Your task to perform on an android device: turn on translation in the chrome app Image 0: 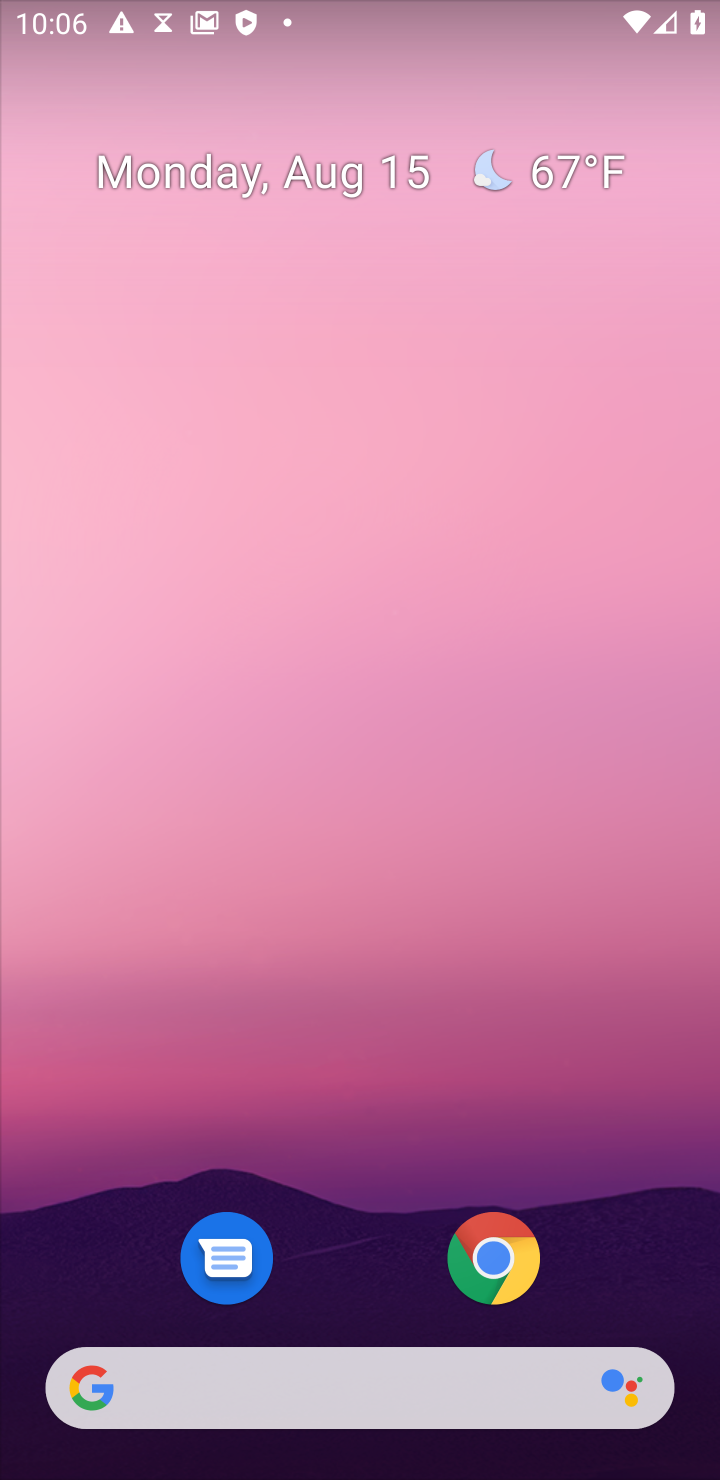
Step 0: drag from (369, 1318) to (690, 9)
Your task to perform on an android device: turn on translation in the chrome app Image 1: 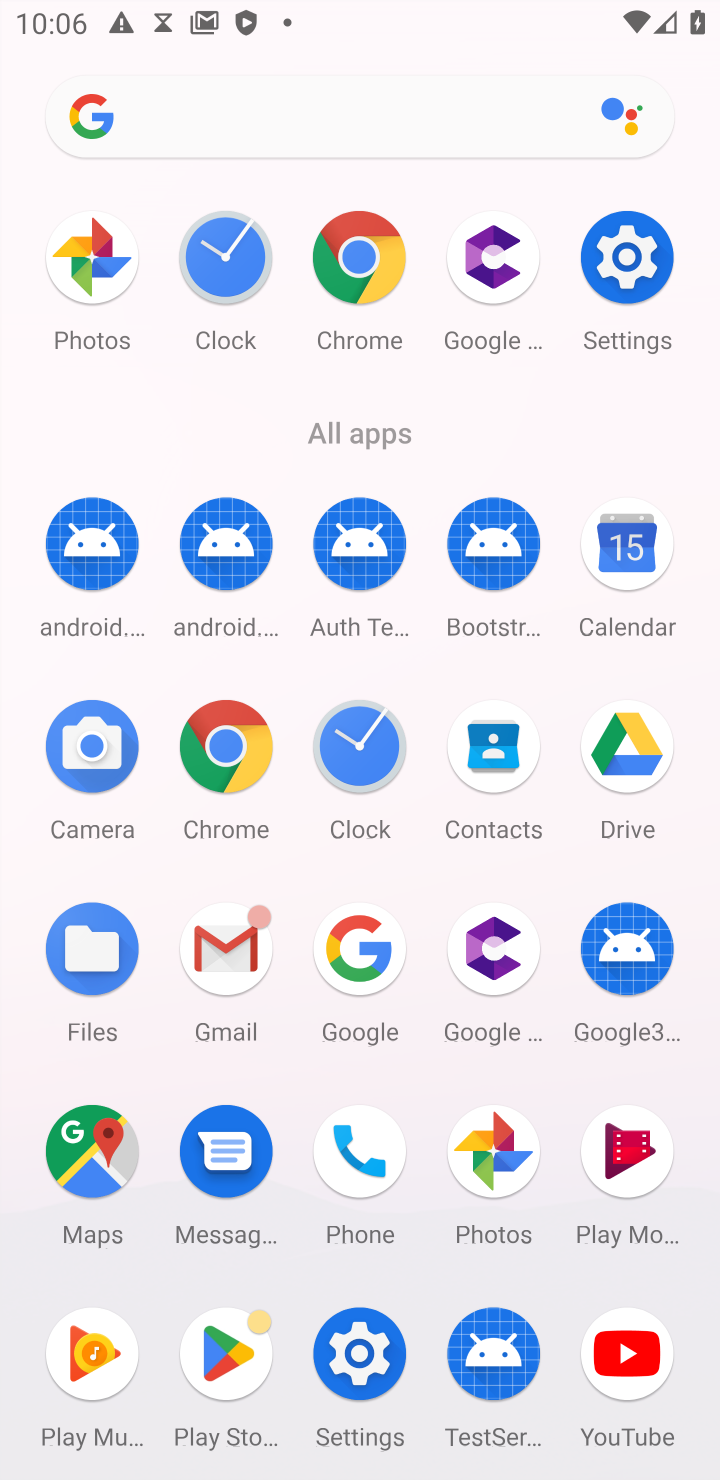
Step 1: click (219, 769)
Your task to perform on an android device: turn on translation in the chrome app Image 2: 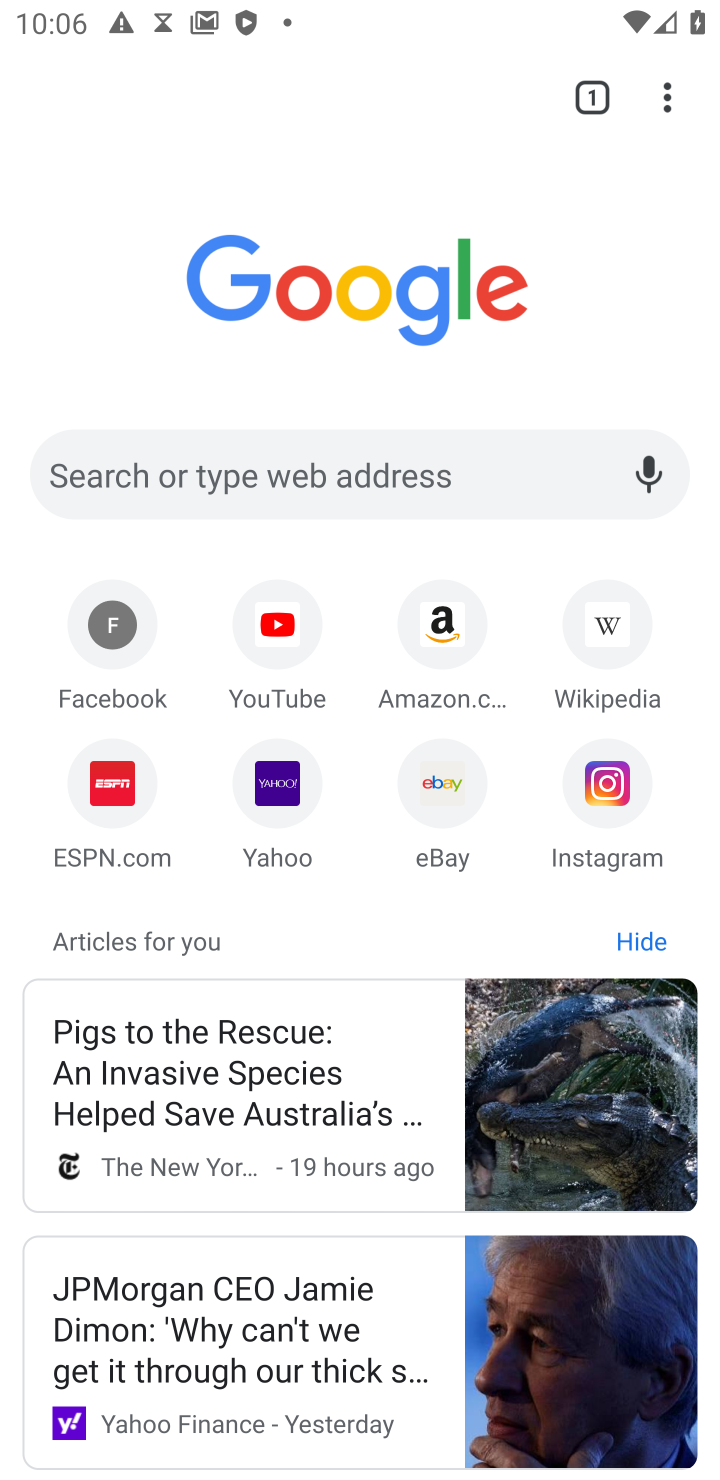
Step 2: click (669, 83)
Your task to perform on an android device: turn on translation in the chrome app Image 3: 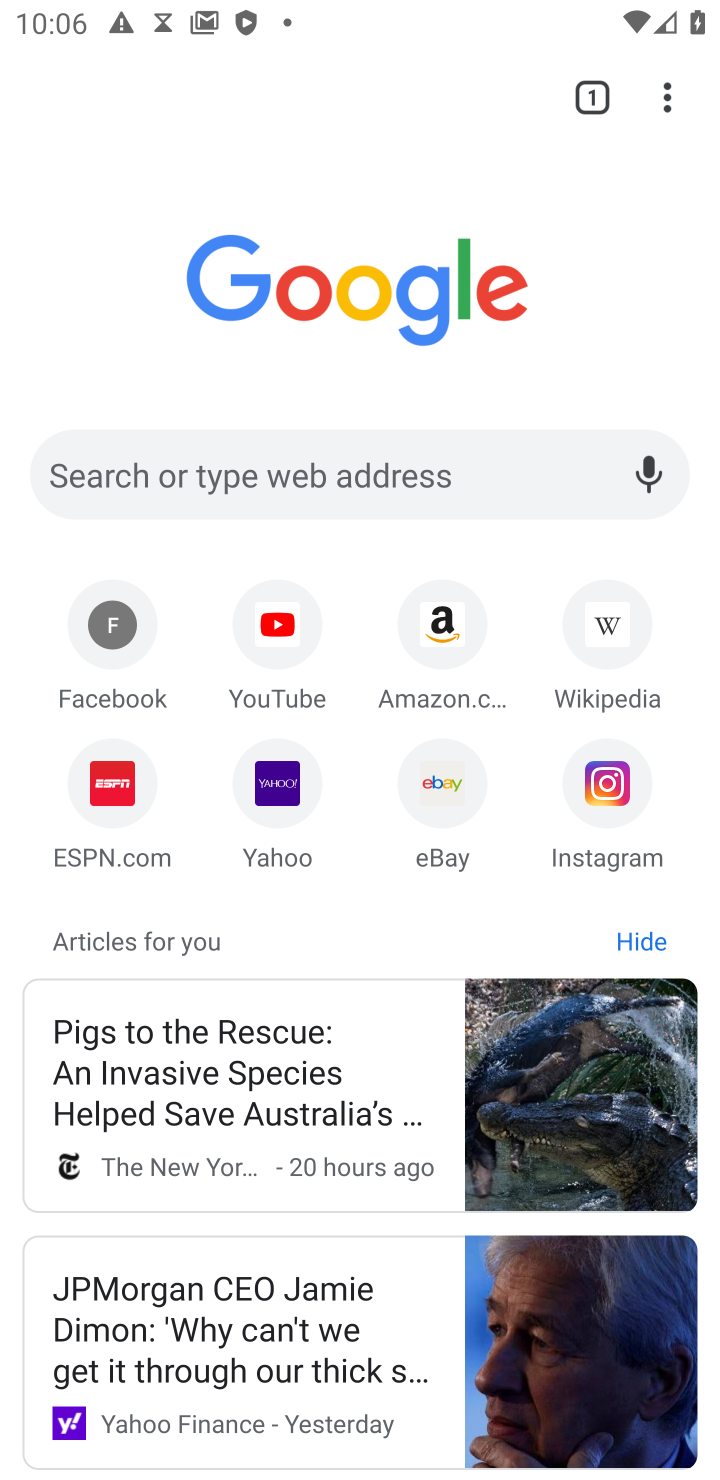
Step 3: click (673, 80)
Your task to perform on an android device: turn on translation in the chrome app Image 4: 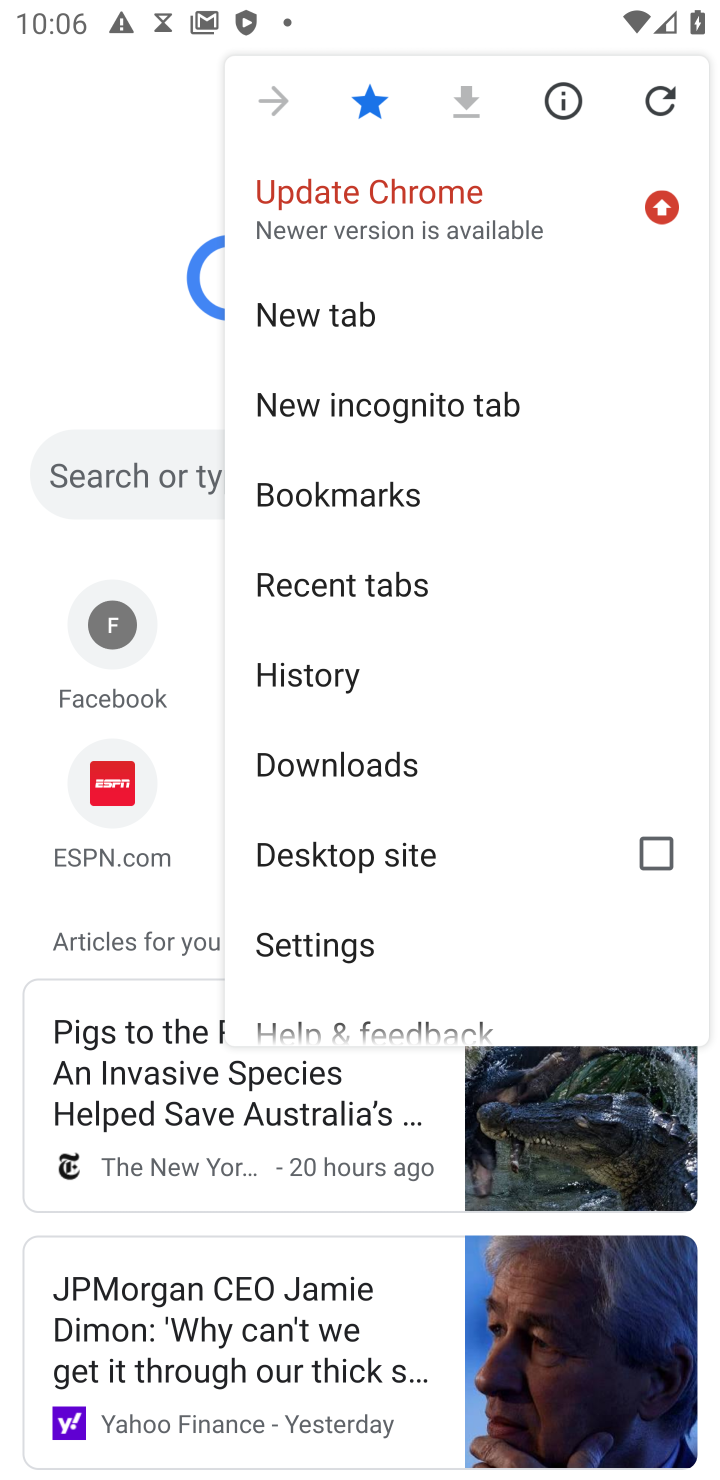
Step 4: click (338, 946)
Your task to perform on an android device: turn on translation in the chrome app Image 5: 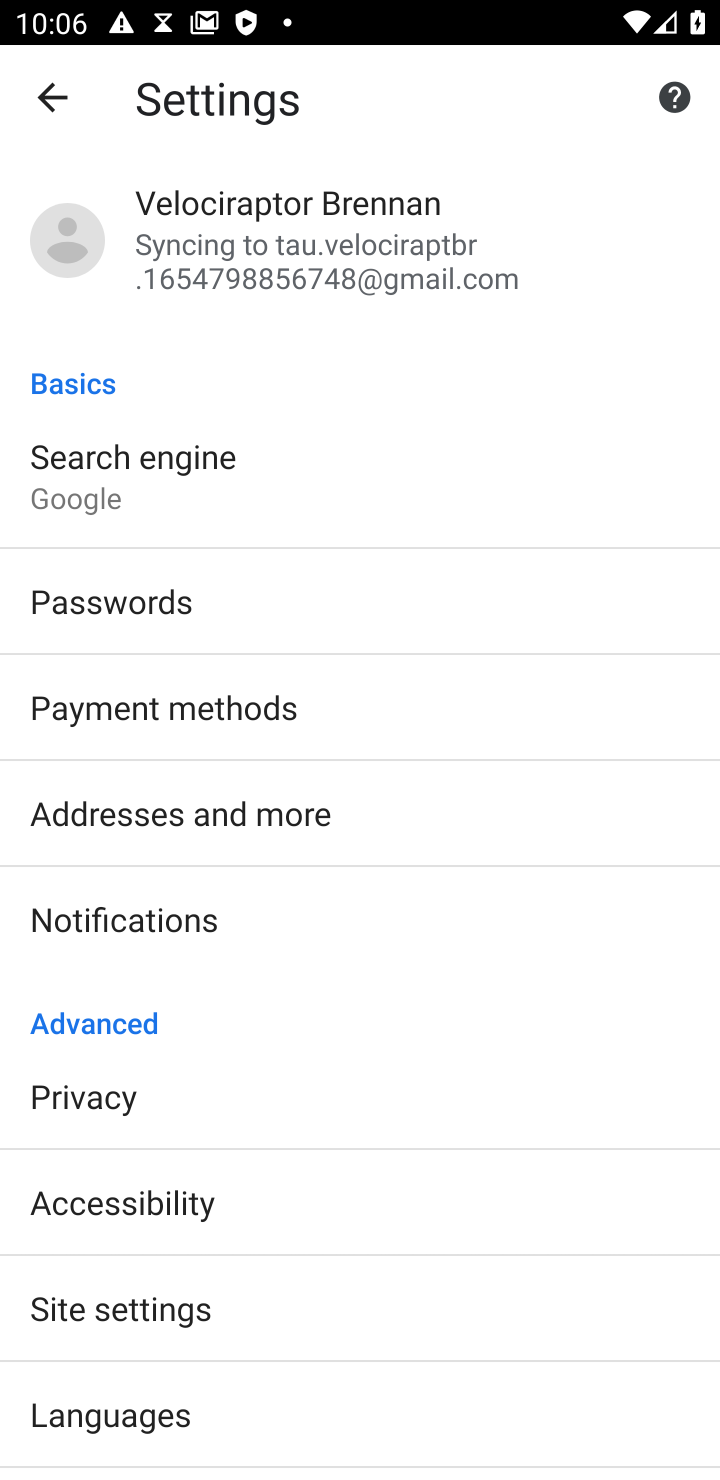
Step 5: drag from (202, 1199) to (193, 694)
Your task to perform on an android device: turn on translation in the chrome app Image 6: 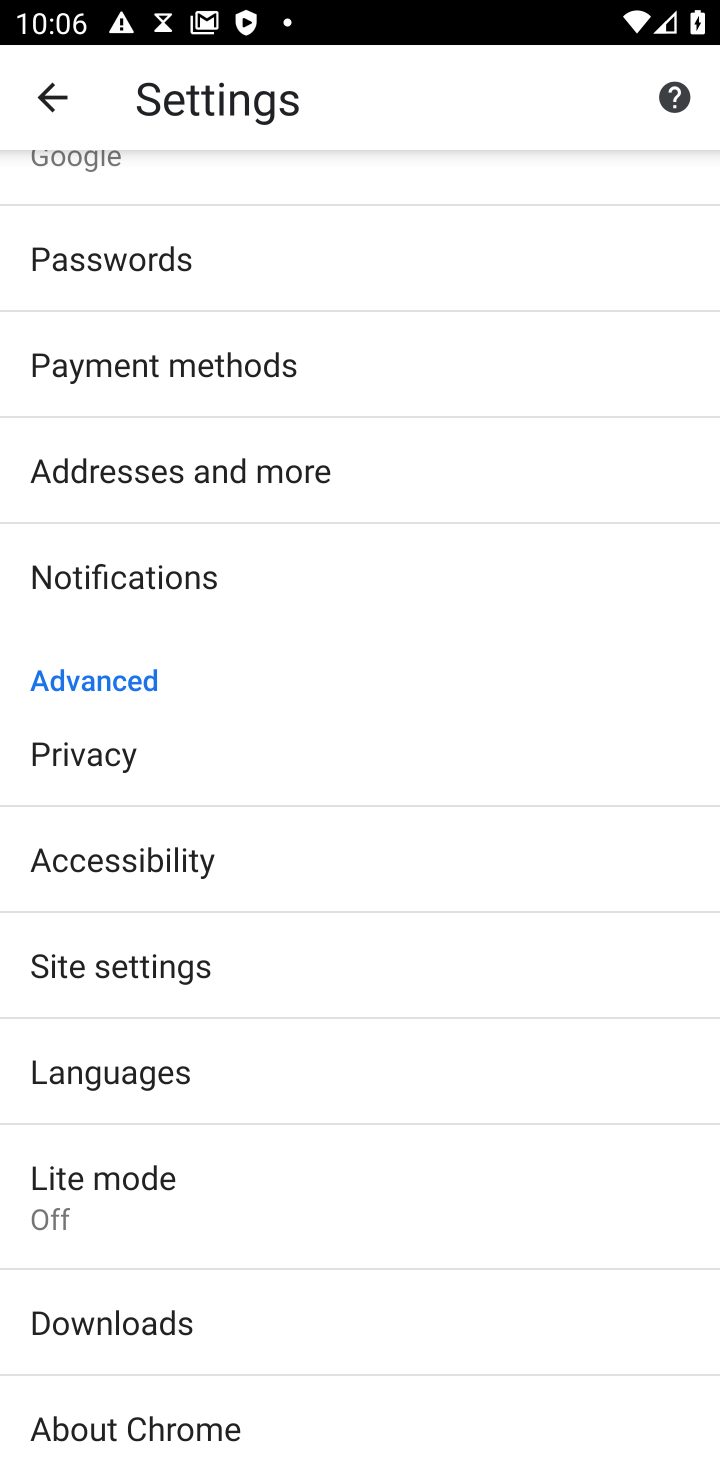
Step 6: click (177, 1072)
Your task to perform on an android device: turn on translation in the chrome app Image 7: 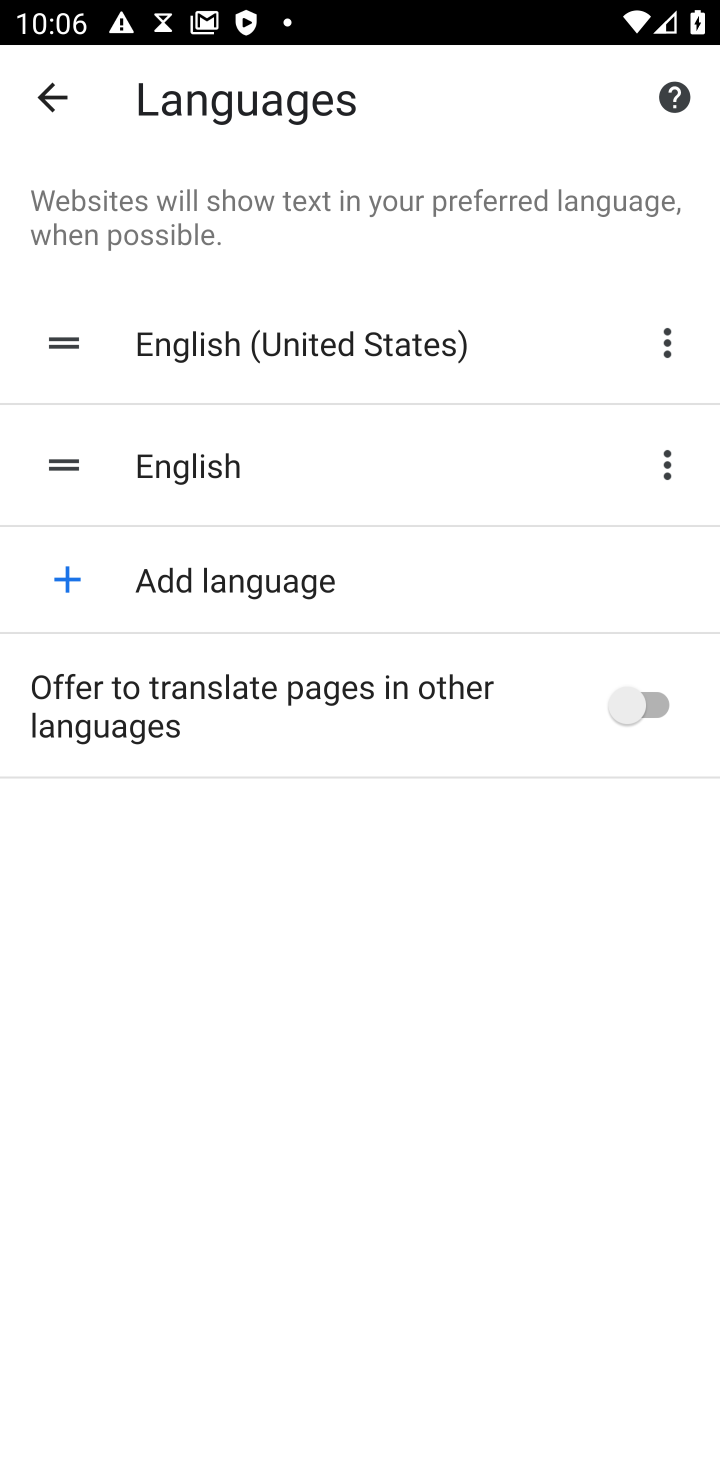
Step 7: click (669, 712)
Your task to perform on an android device: turn on translation in the chrome app Image 8: 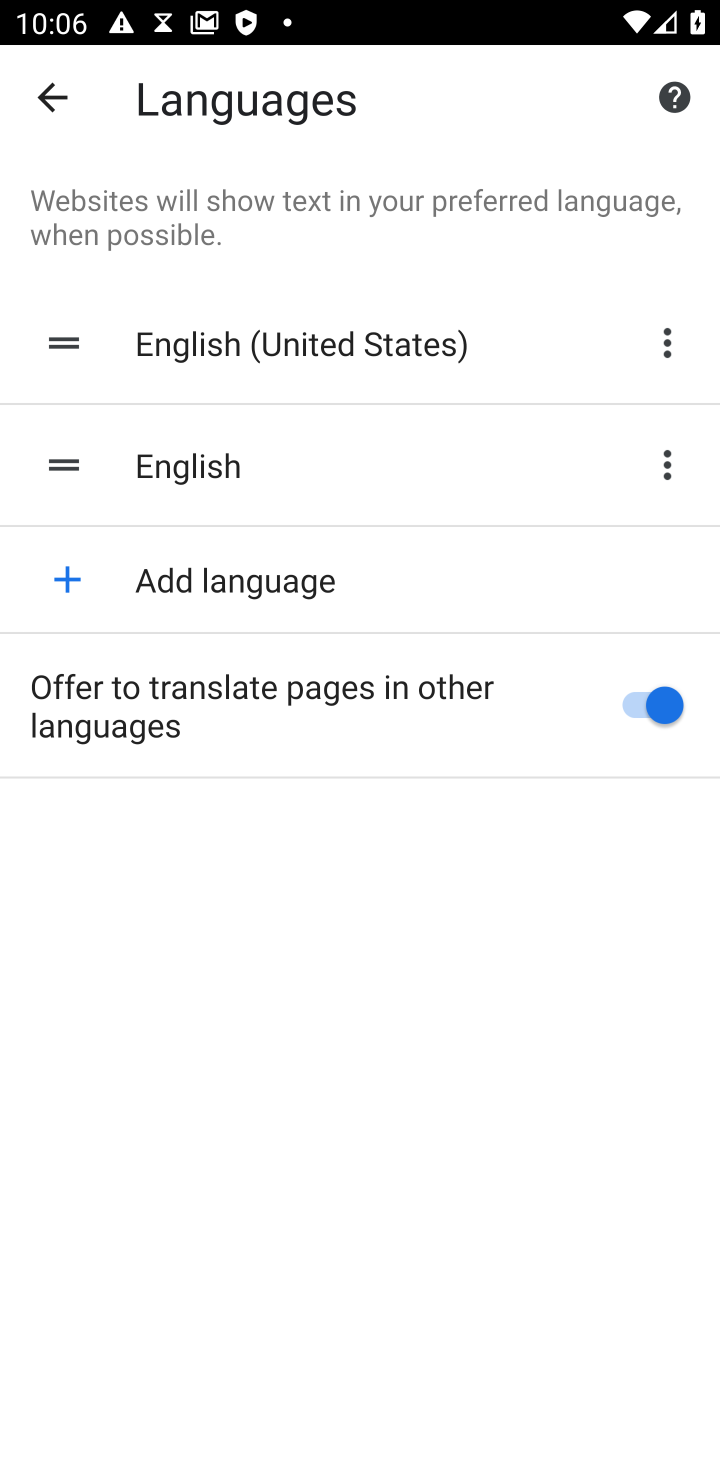
Step 8: task complete